Your task to perform on an android device: What's on my calendar tomorrow? Image 0: 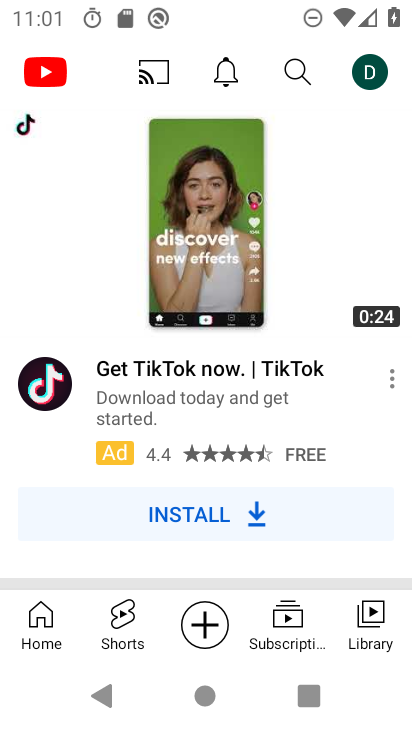
Step 0: press home button
Your task to perform on an android device: What's on my calendar tomorrow? Image 1: 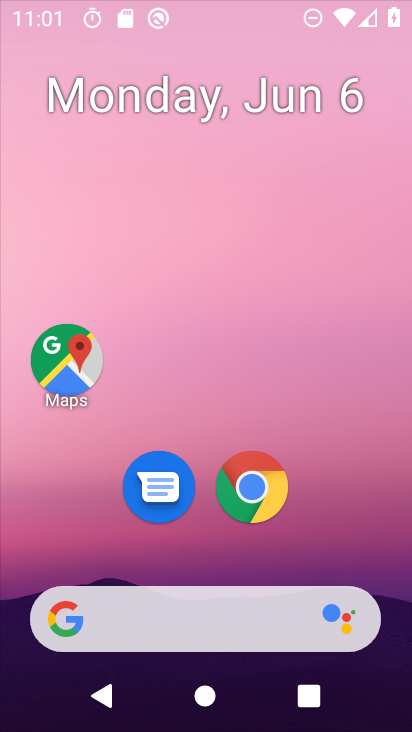
Step 1: drag from (396, 626) to (285, 28)
Your task to perform on an android device: What's on my calendar tomorrow? Image 2: 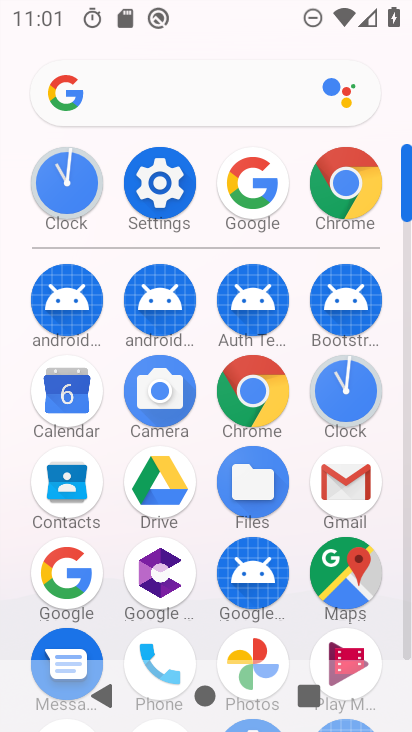
Step 2: click (49, 389)
Your task to perform on an android device: What's on my calendar tomorrow? Image 3: 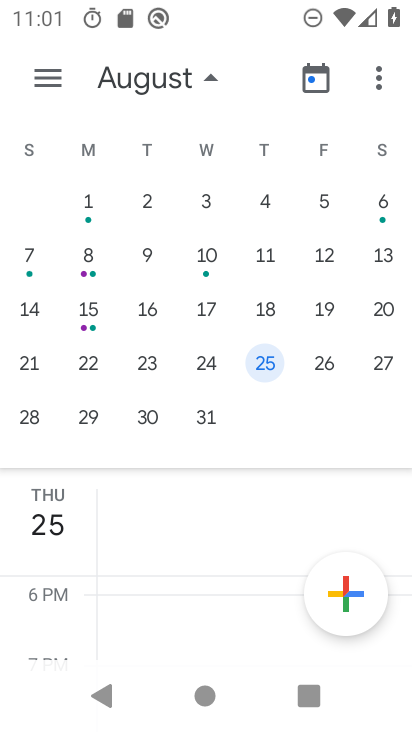
Step 3: task complete